Your task to perform on an android device: Show me recent news Image 0: 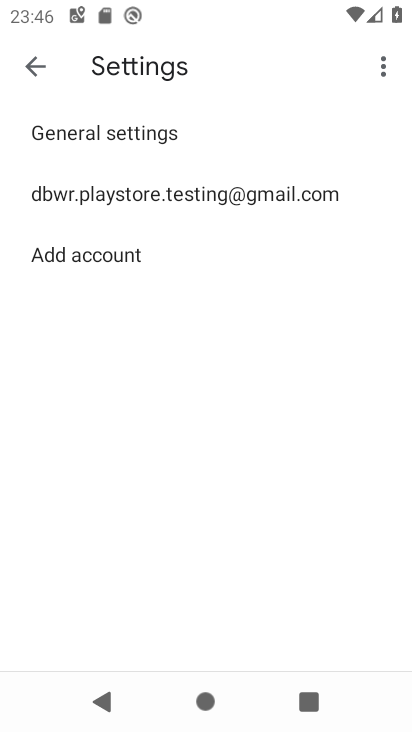
Step 0: press home button
Your task to perform on an android device: Show me recent news Image 1: 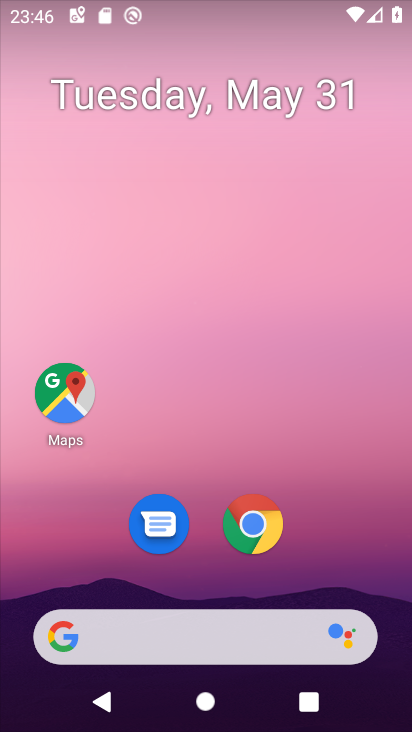
Step 1: click (241, 644)
Your task to perform on an android device: Show me recent news Image 2: 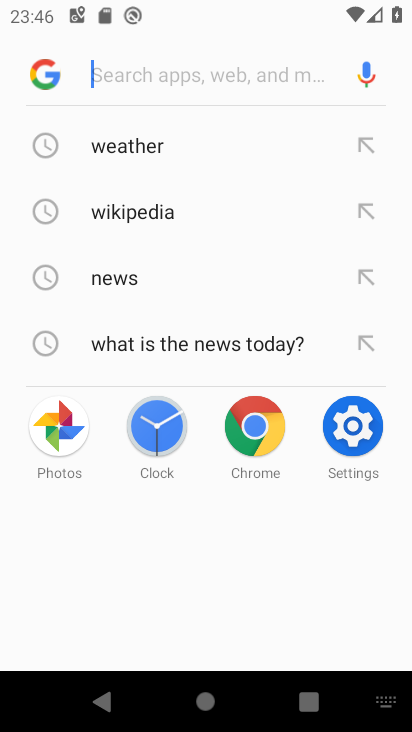
Step 2: click (122, 265)
Your task to perform on an android device: Show me recent news Image 3: 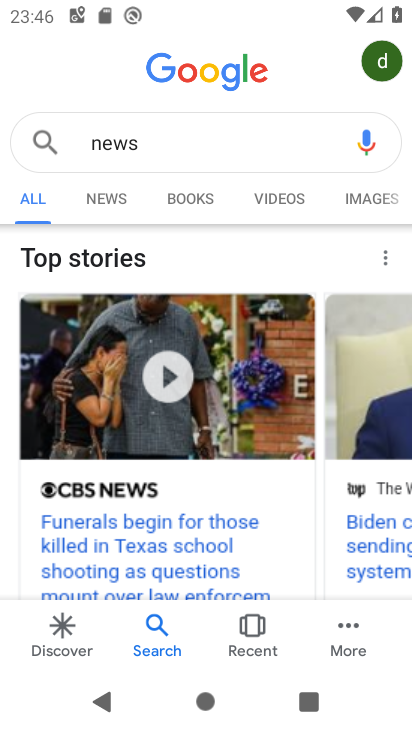
Step 3: click (112, 198)
Your task to perform on an android device: Show me recent news Image 4: 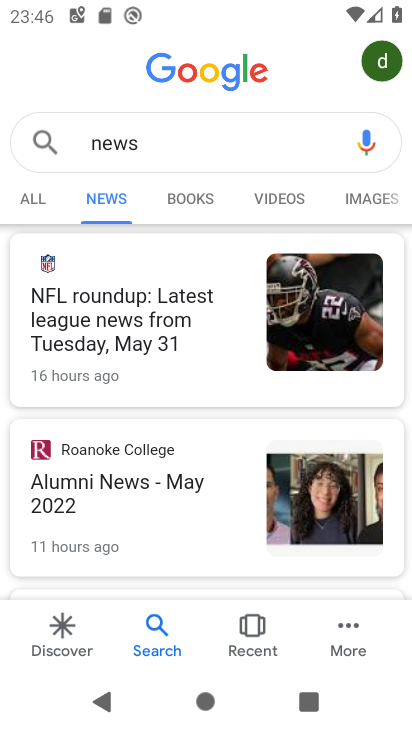
Step 4: task complete